Your task to perform on an android device: change the clock display to digital Image 0: 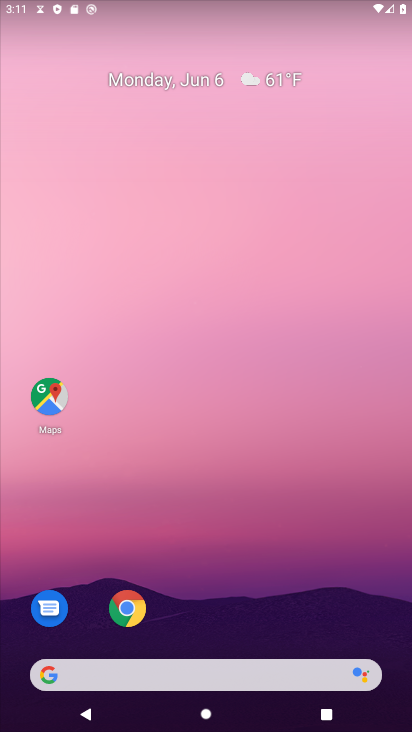
Step 0: drag from (251, 604) to (338, 10)
Your task to perform on an android device: change the clock display to digital Image 1: 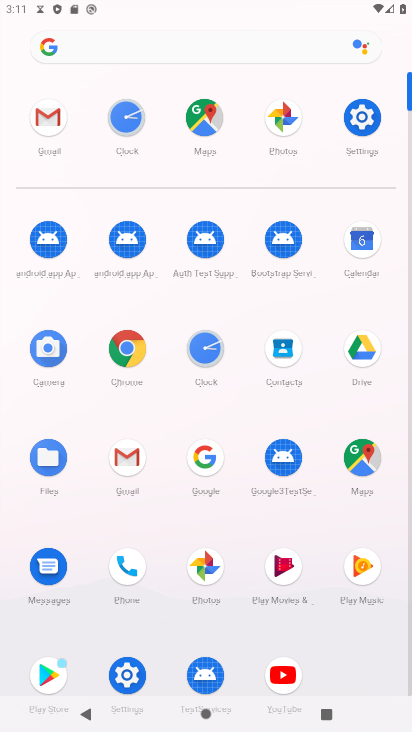
Step 1: click (207, 352)
Your task to perform on an android device: change the clock display to digital Image 2: 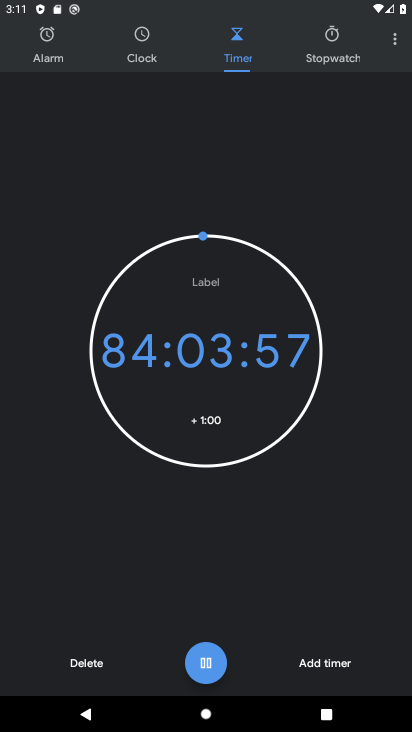
Step 2: click (394, 45)
Your task to perform on an android device: change the clock display to digital Image 3: 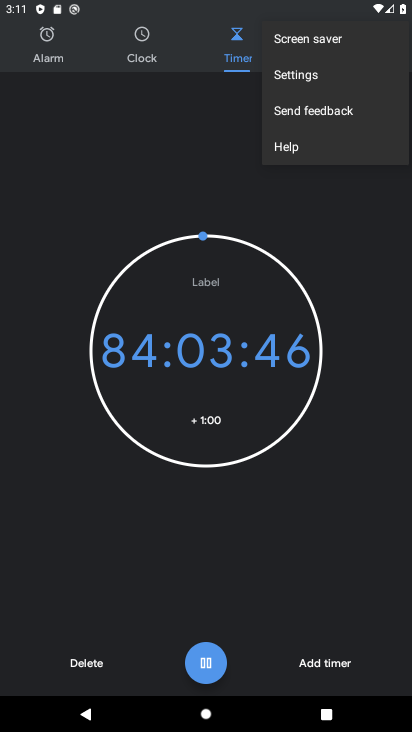
Step 3: click (311, 65)
Your task to perform on an android device: change the clock display to digital Image 4: 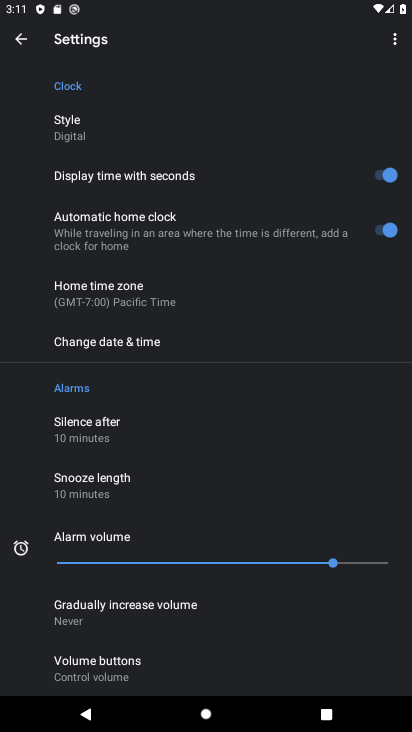
Step 4: click (84, 132)
Your task to perform on an android device: change the clock display to digital Image 5: 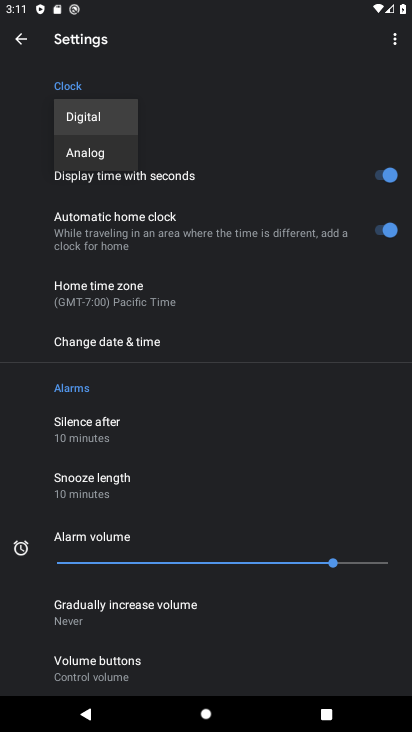
Step 5: click (125, 114)
Your task to perform on an android device: change the clock display to digital Image 6: 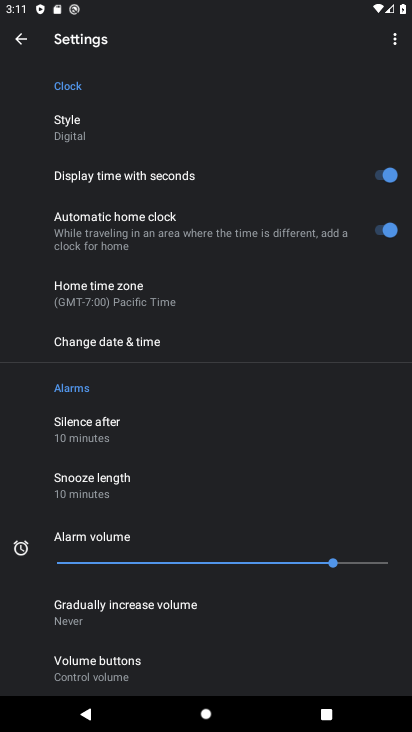
Step 6: task complete